Your task to perform on an android device: Search for Italian restaurants on Maps Image 0: 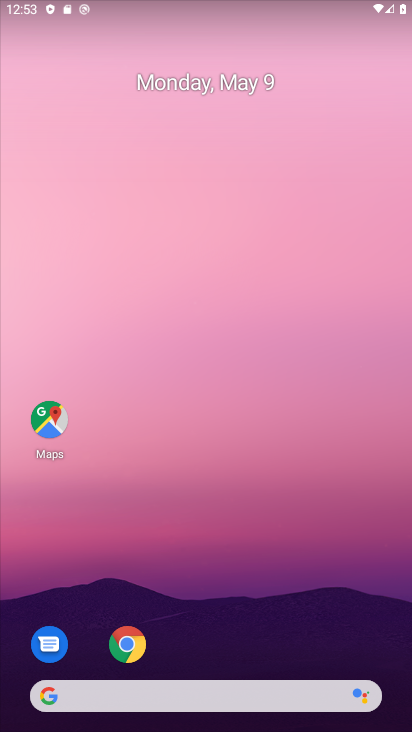
Step 0: click (45, 415)
Your task to perform on an android device: Search for Italian restaurants on Maps Image 1: 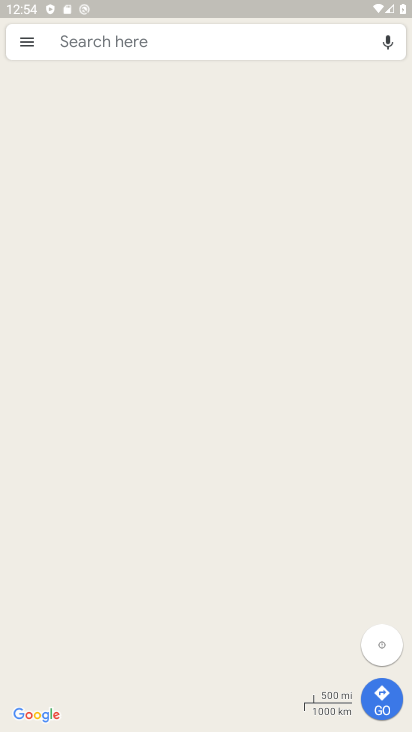
Step 1: click (170, 47)
Your task to perform on an android device: Search for Italian restaurants on Maps Image 2: 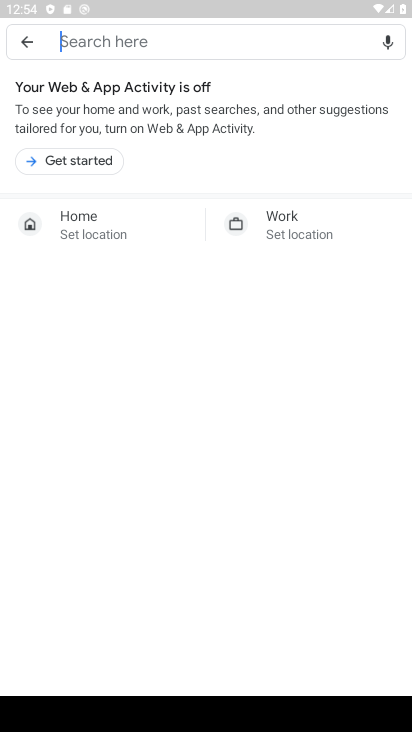
Step 2: click (152, 45)
Your task to perform on an android device: Search for Italian restaurants on Maps Image 3: 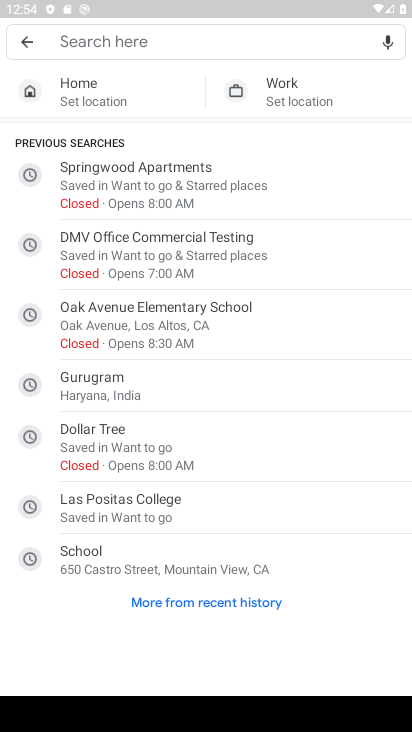
Step 3: click (144, 47)
Your task to perform on an android device: Search for Italian restaurants on Maps Image 4: 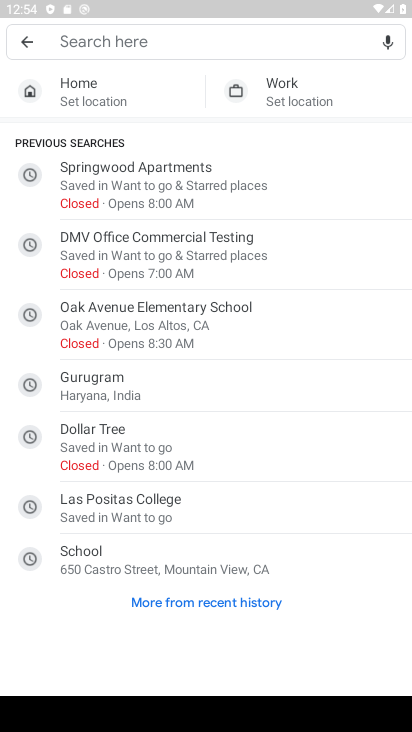
Step 4: type "Italian restaurants"
Your task to perform on an android device: Search for Italian restaurants on Maps Image 5: 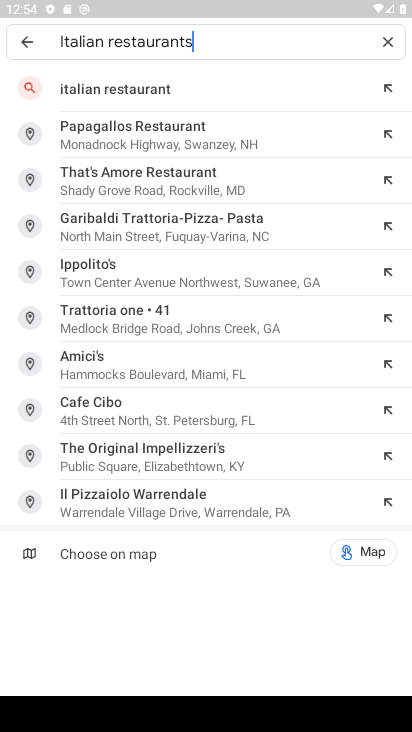
Step 5: click (145, 90)
Your task to perform on an android device: Search for Italian restaurants on Maps Image 6: 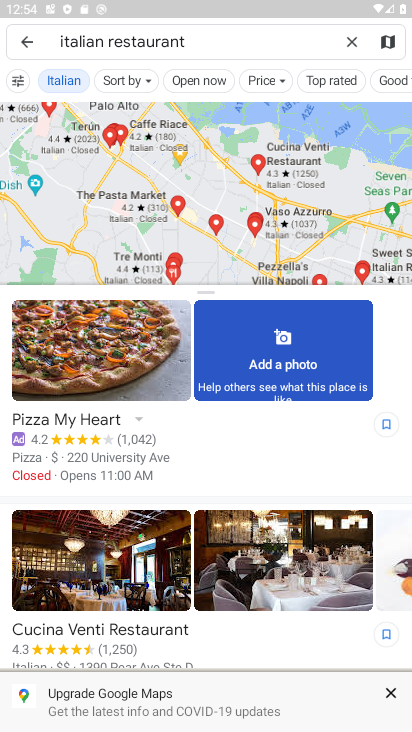
Step 6: task complete